Your task to perform on an android device: open chrome privacy settings Image 0: 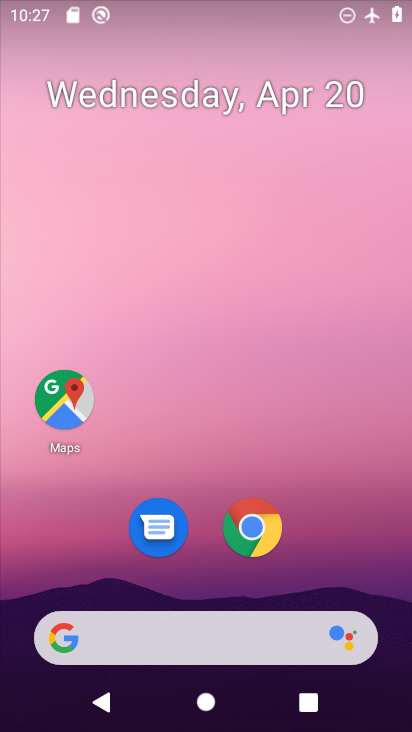
Step 0: click (242, 523)
Your task to perform on an android device: open chrome privacy settings Image 1: 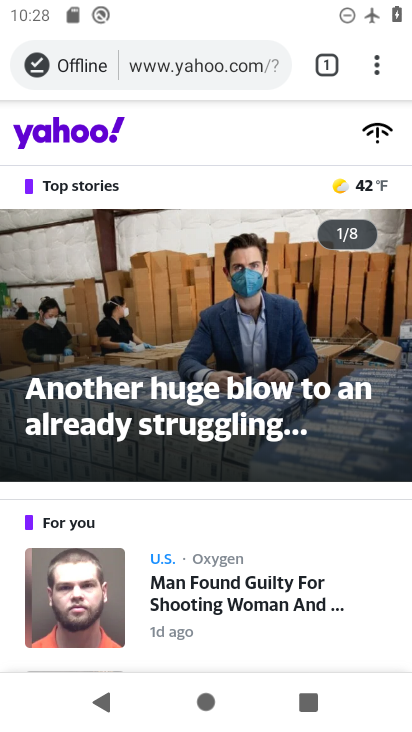
Step 1: click (383, 54)
Your task to perform on an android device: open chrome privacy settings Image 2: 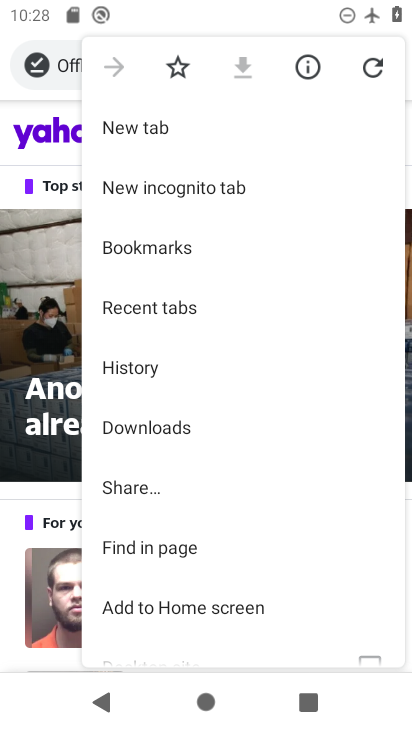
Step 2: drag from (115, 574) to (187, 293)
Your task to perform on an android device: open chrome privacy settings Image 3: 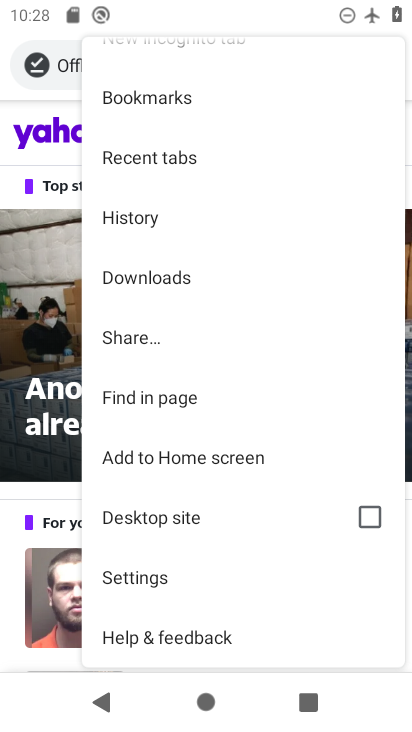
Step 3: click (154, 580)
Your task to perform on an android device: open chrome privacy settings Image 4: 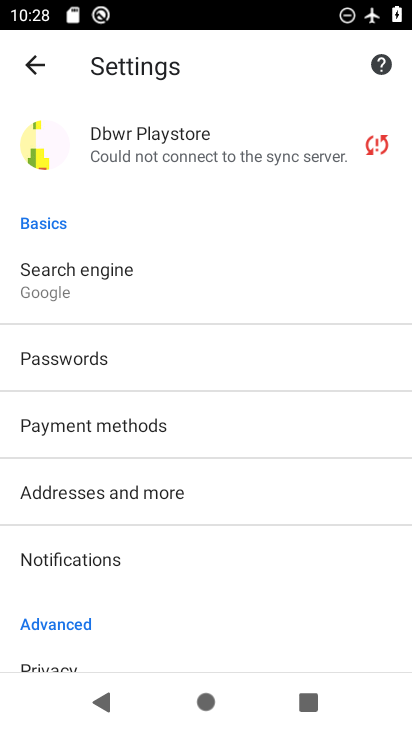
Step 4: drag from (79, 569) to (115, 350)
Your task to perform on an android device: open chrome privacy settings Image 5: 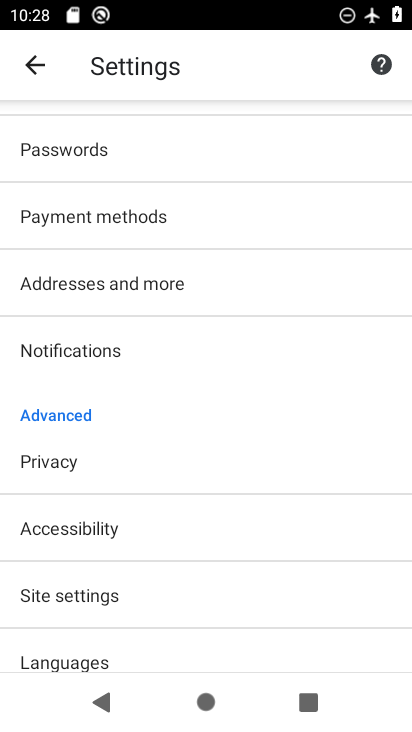
Step 5: click (63, 457)
Your task to perform on an android device: open chrome privacy settings Image 6: 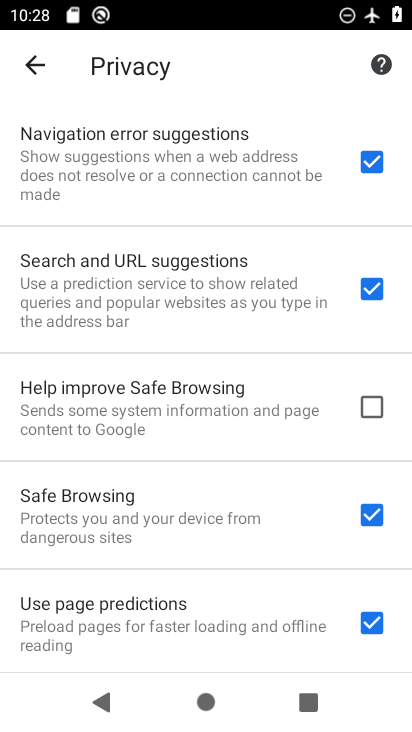
Step 6: task complete